Your task to perform on an android device: install app "Pinterest" Image 0: 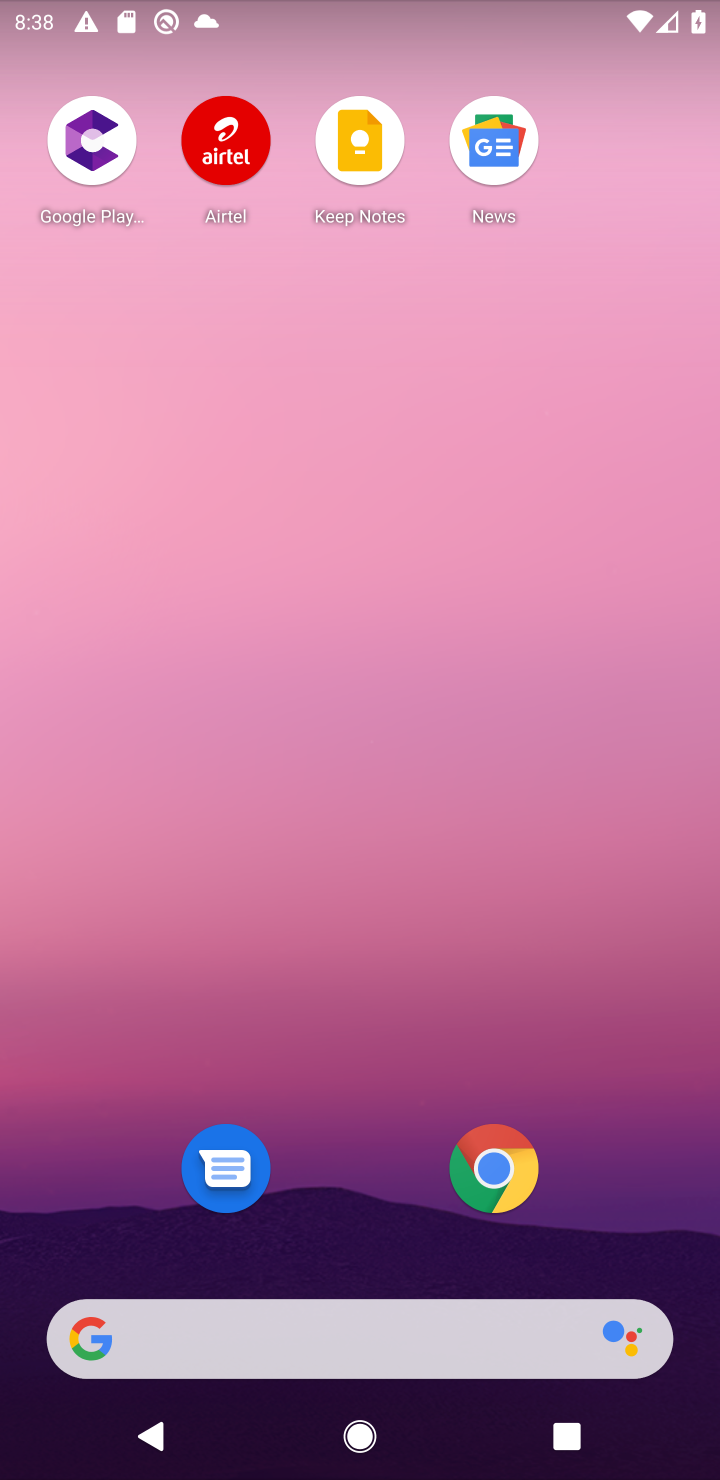
Step 0: drag from (526, 1159) to (543, 192)
Your task to perform on an android device: install app "Pinterest" Image 1: 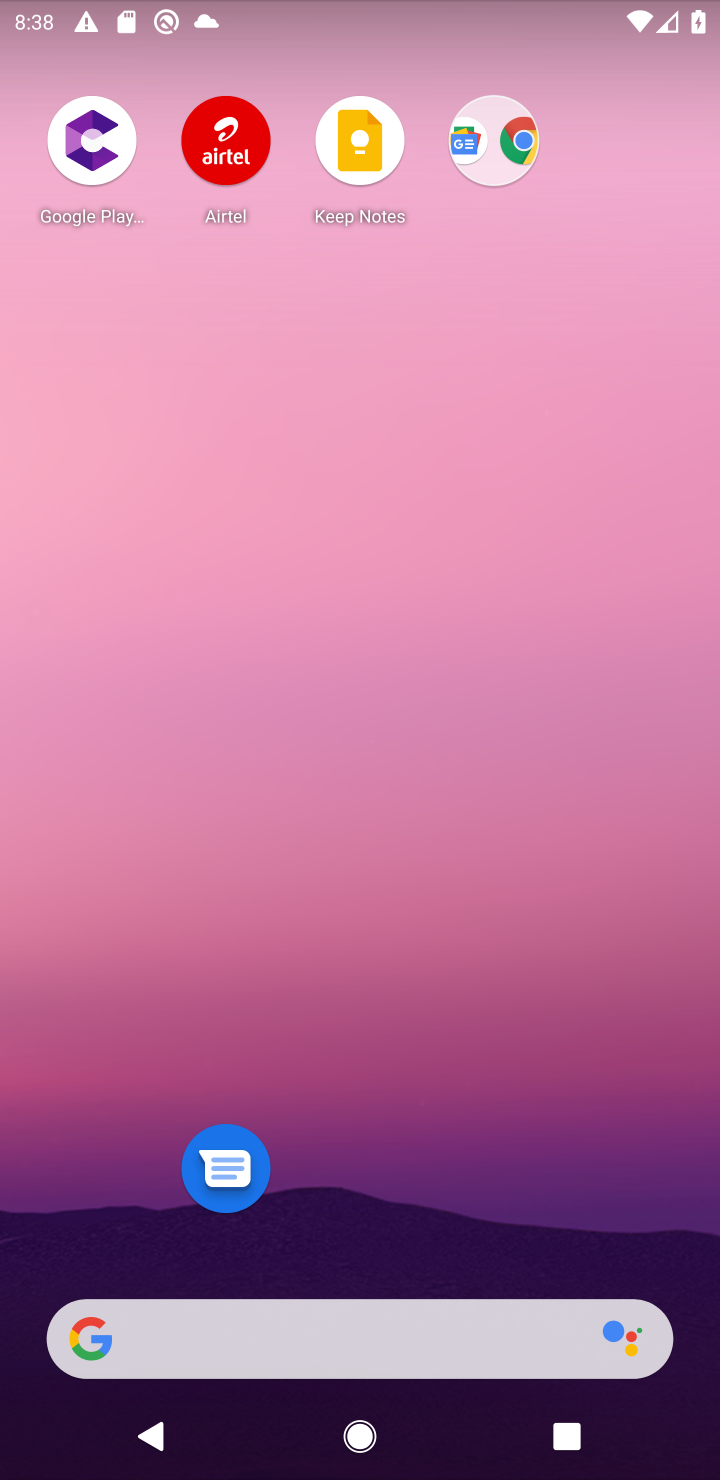
Step 1: drag from (538, 821) to (69, 549)
Your task to perform on an android device: install app "Pinterest" Image 2: 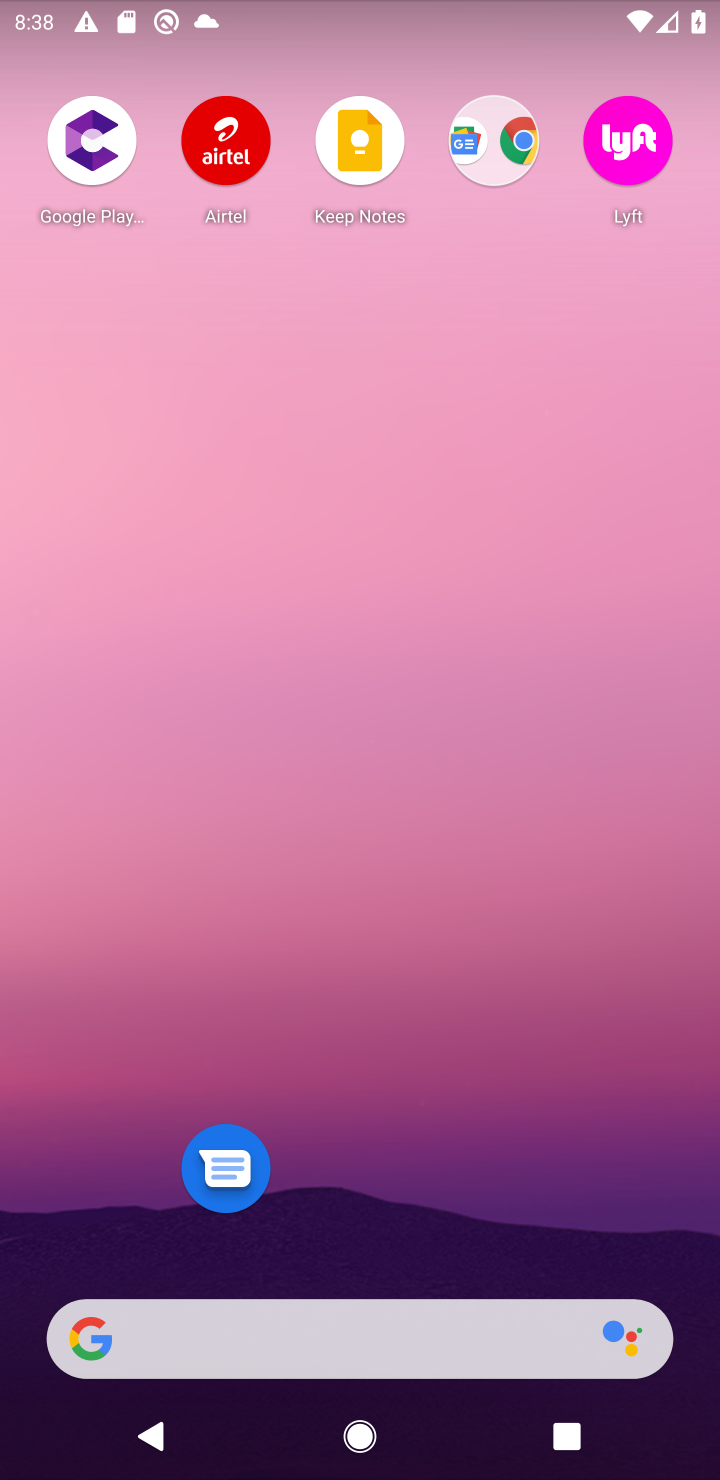
Step 2: drag from (364, 1368) to (455, 136)
Your task to perform on an android device: install app "Pinterest" Image 3: 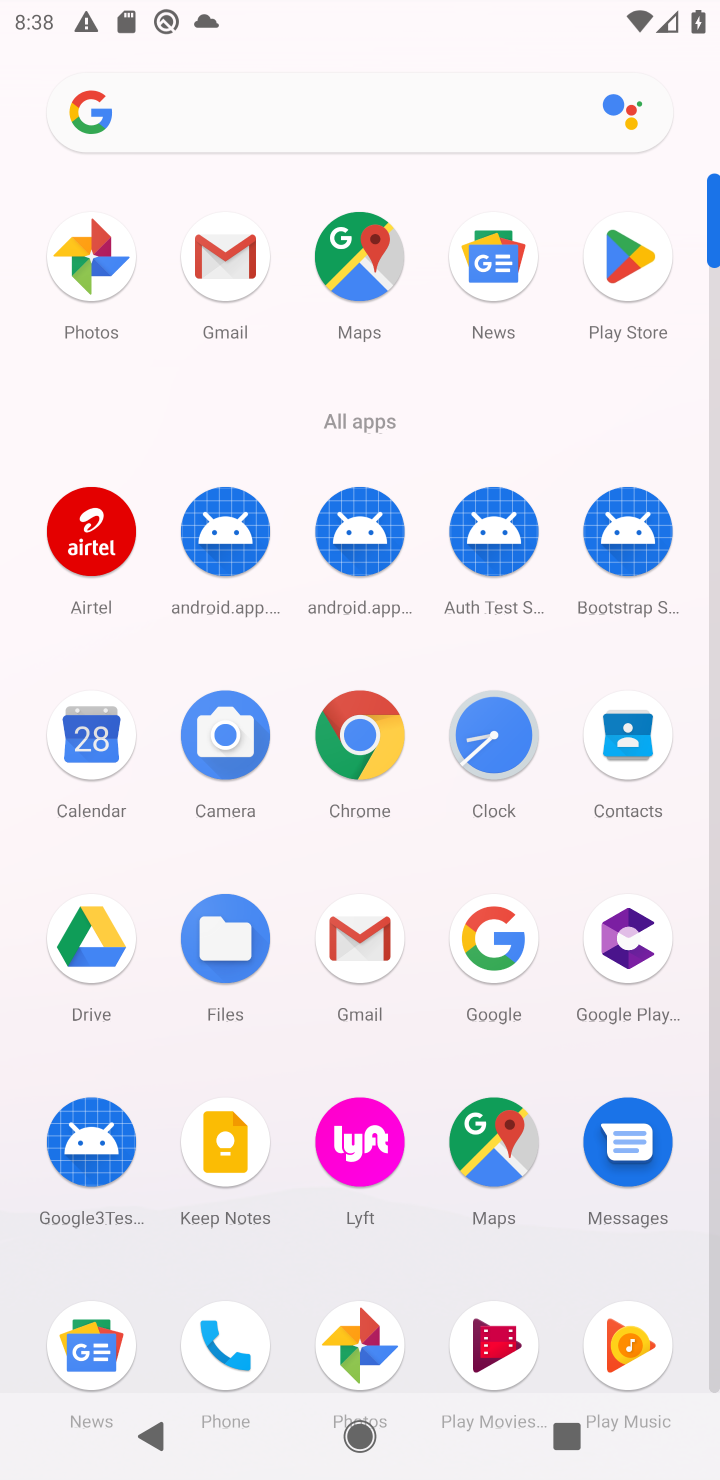
Step 3: click (628, 265)
Your task to perform on an android device: install app "Pinterest" Image 4: 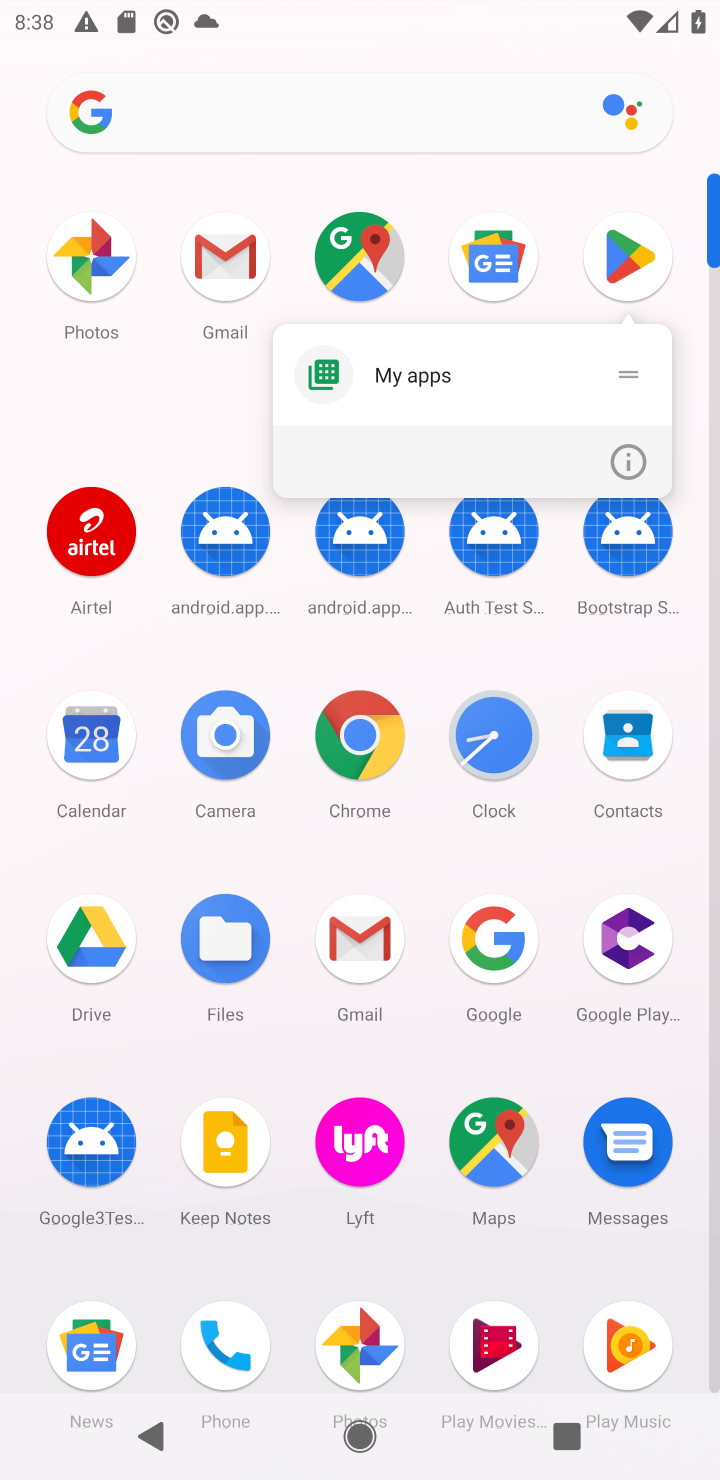
Step 4: click (628, 265)
Your task to perform on an android device: install app "Pinterest" Image 5: 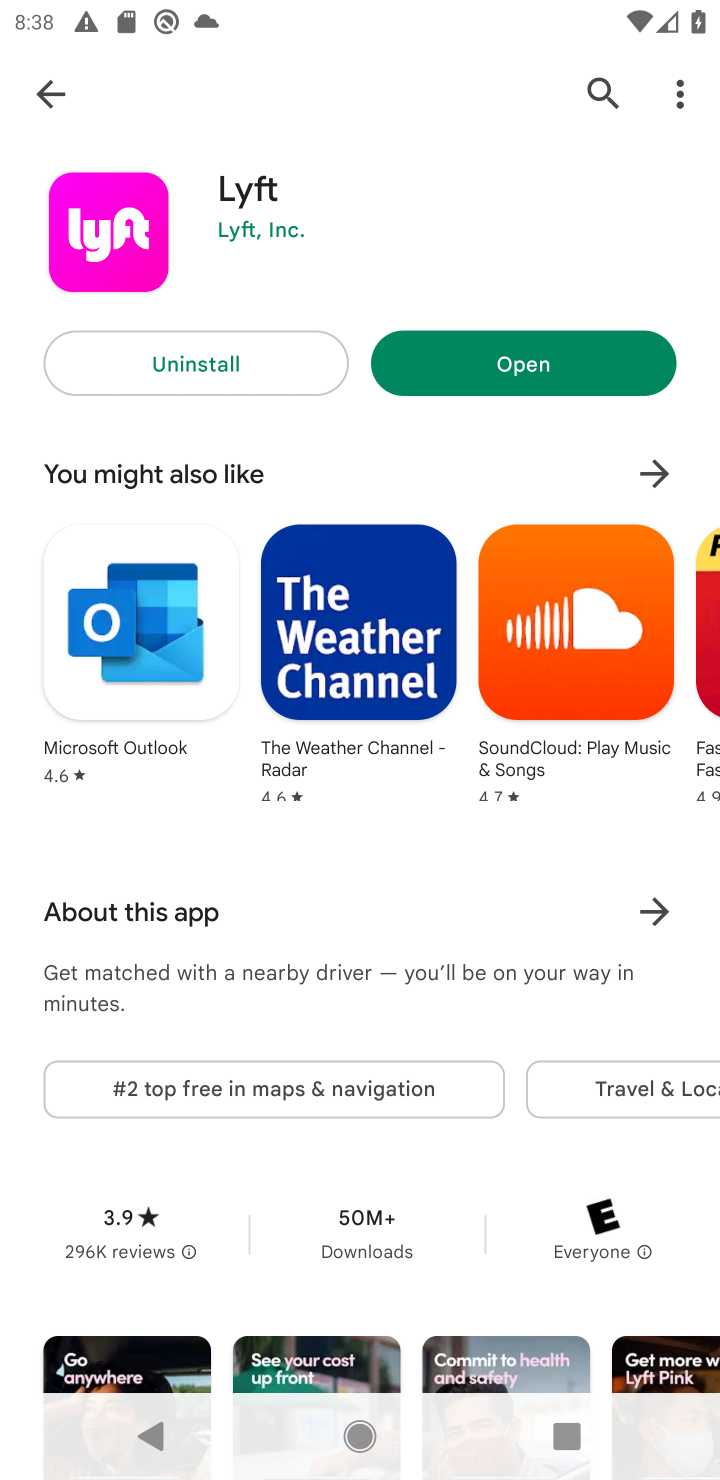
Step 5: click (608, 87)
Your task to perform on an android device: install app "Pinterest" Image 6: 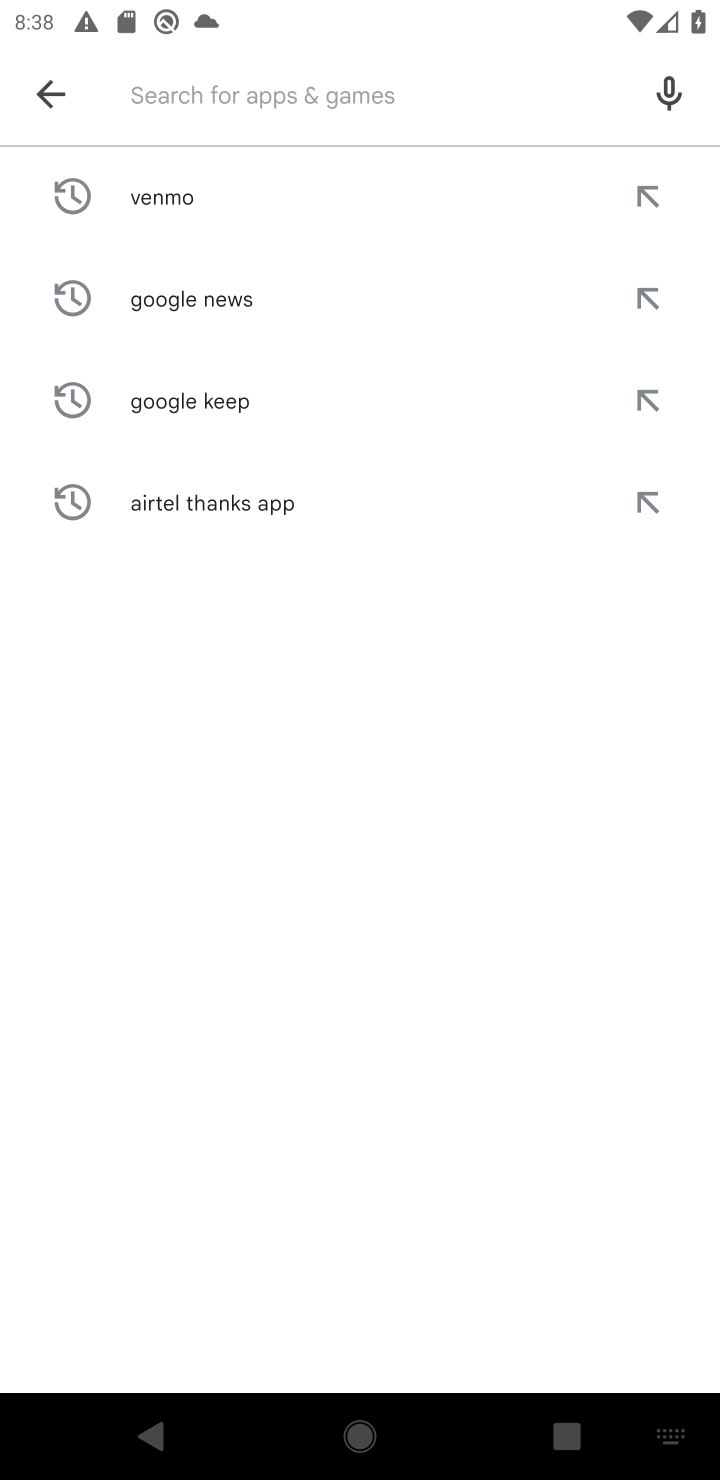
Step 6: type "pinterest"
Your task to perform on an android device: install app "Pinterest" Image 7: 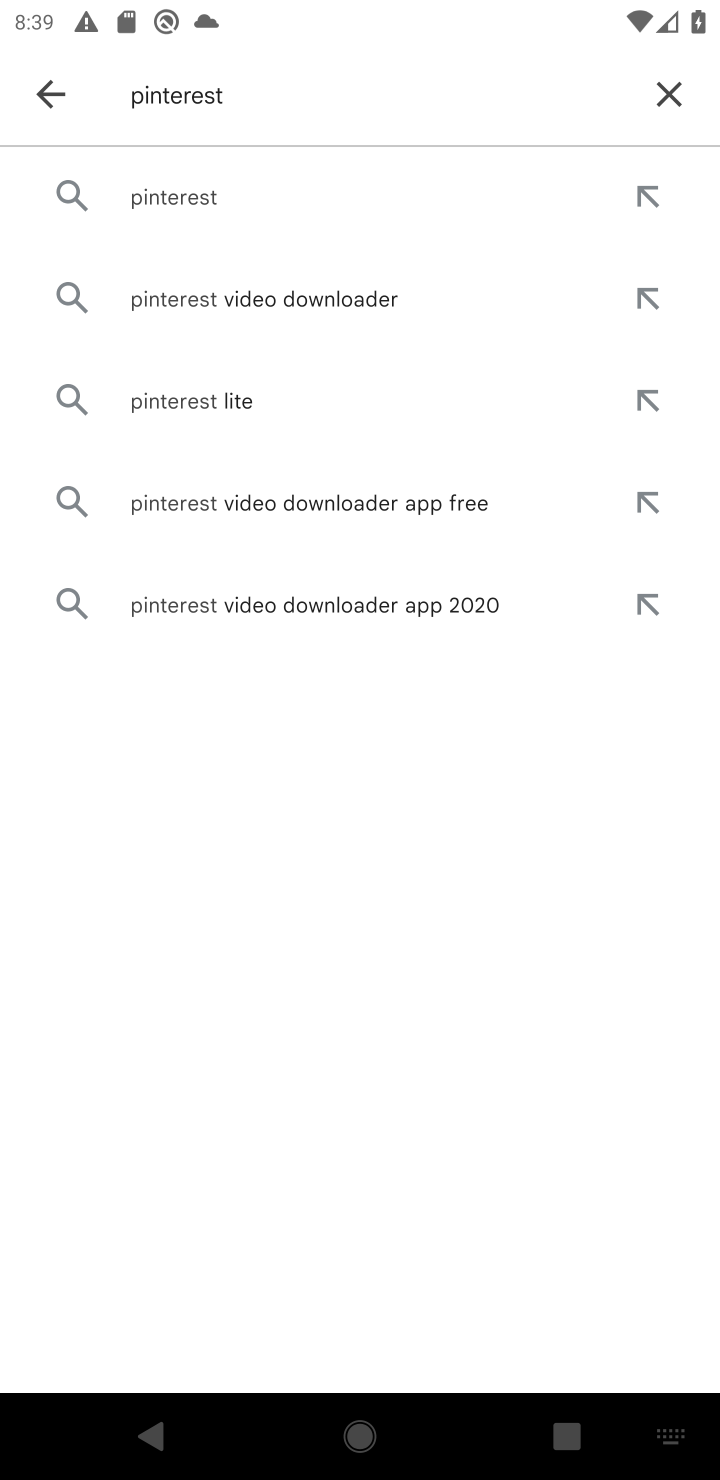
Step 7: click (140, 197)
Your task to perform on an android device: install app "Pinterest" Image 8: 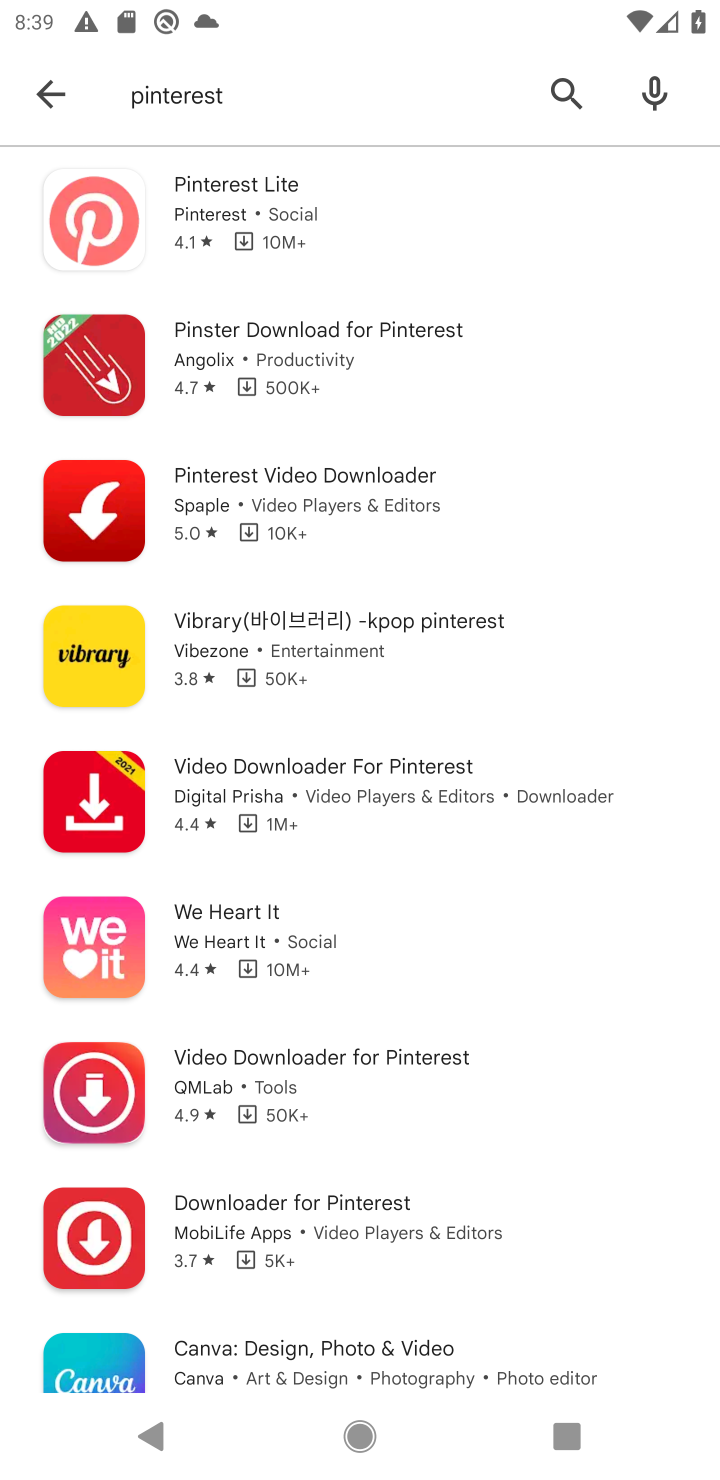
Step 8: click (221, 193)
Your task to perform on an android device: install app "Pinterest" Image 9: 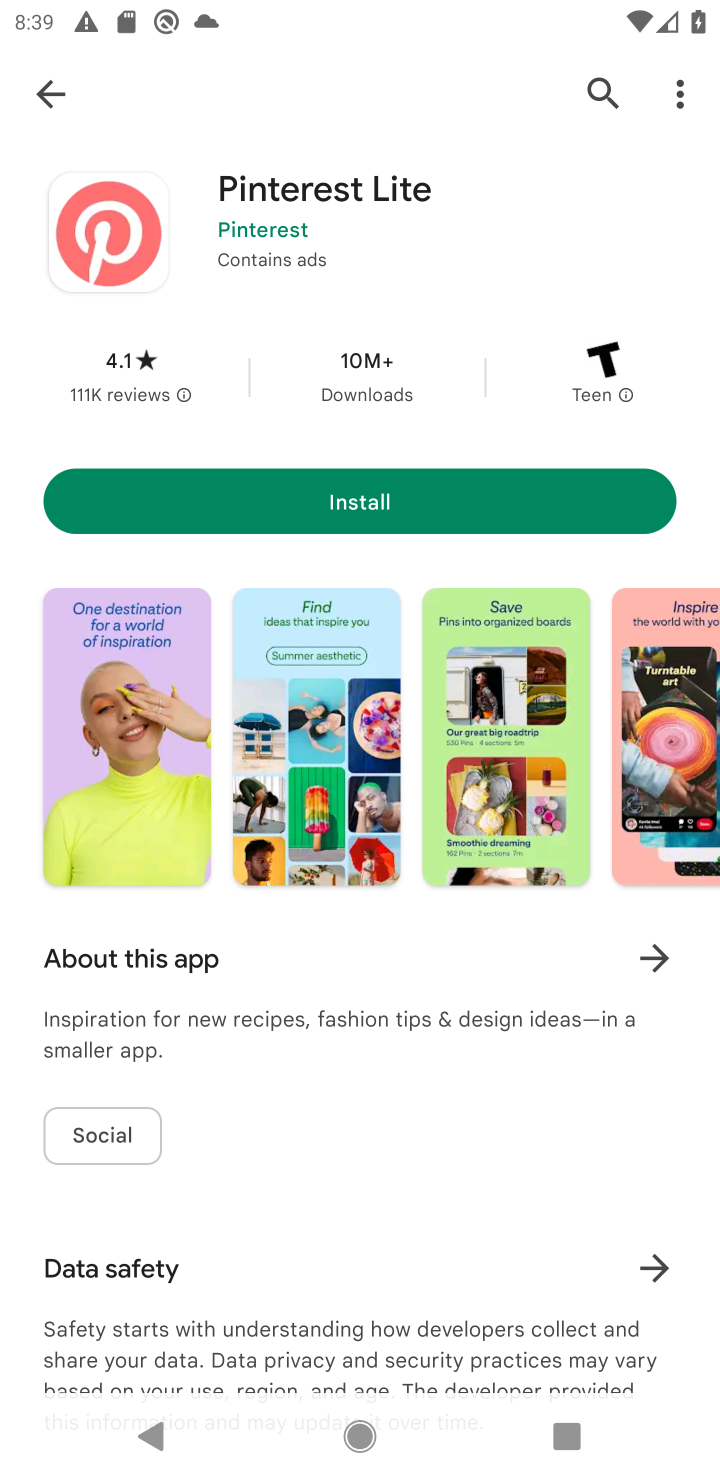
Step 9: click (486, 494)
Your task to perform on an android device: install app "Pinterest" Image 10: 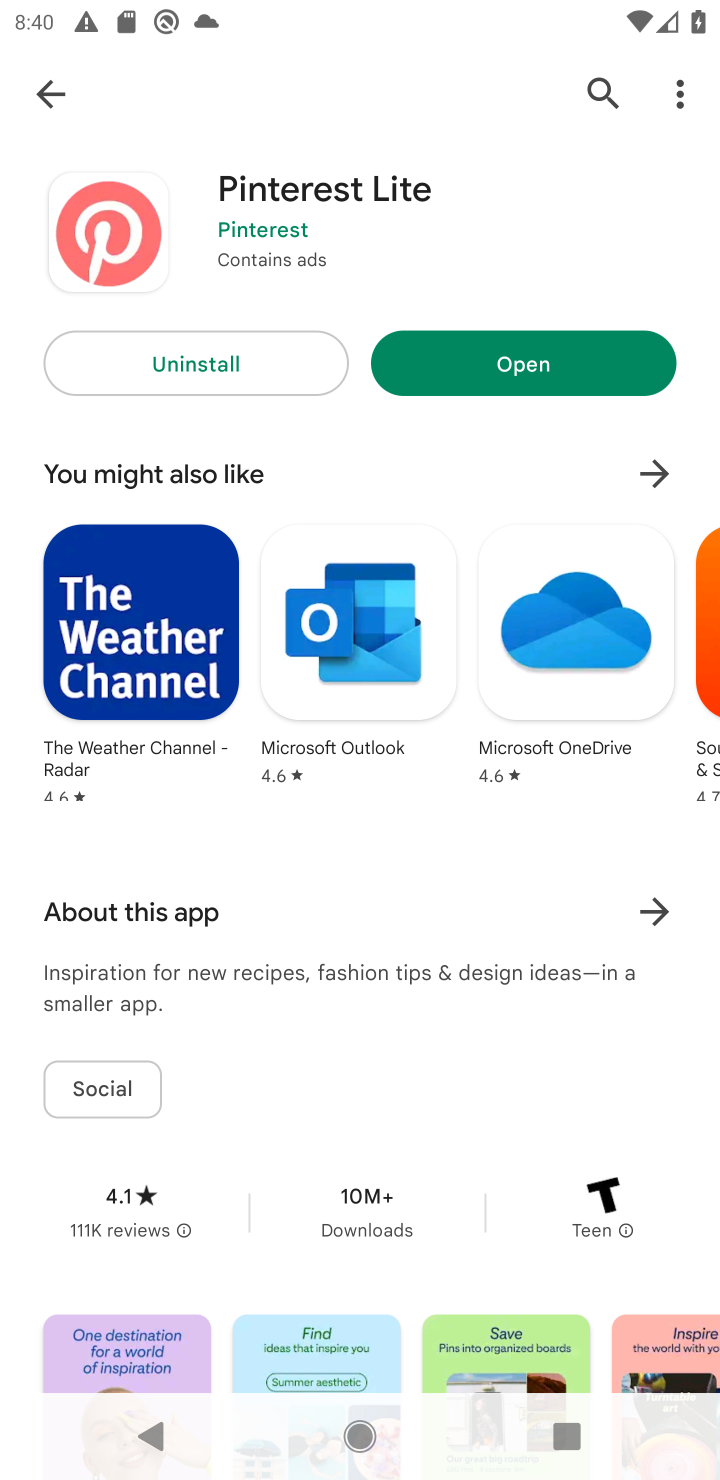
Step 10: task complete